Your task to perform on an android device: change the upload size in google photos Image 0: 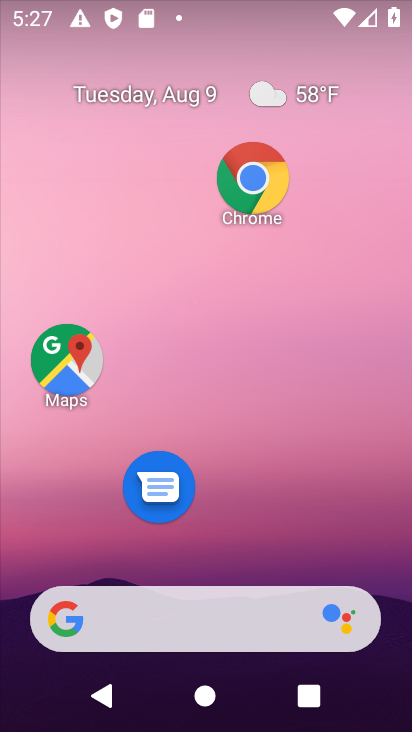
Step 0: drag from (255, 527) to (204, 161)
Your task to perform on an android device: change the upload size in google photos Image 1: 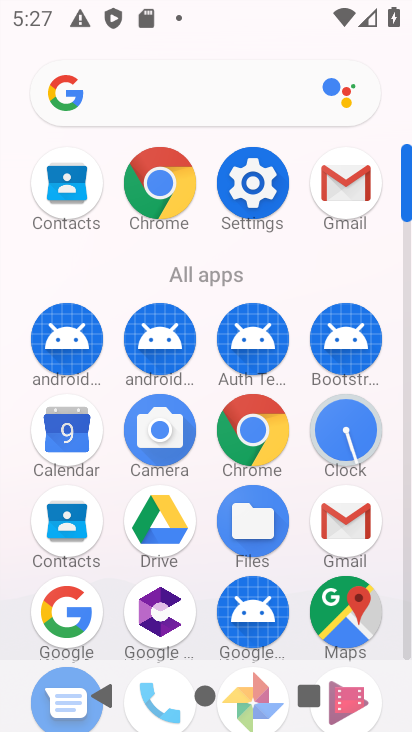
Step 1: click (269, 697)
Your task to perform on an android device: change the upload size in google photos Image 2: 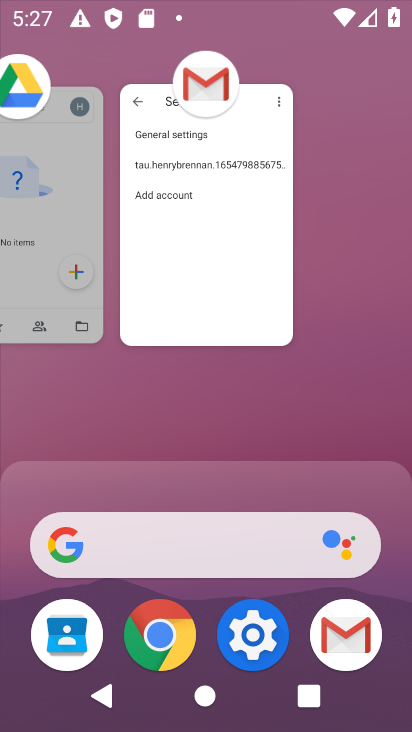
Step 2: click (152, 350)
Your task to perform on an android device: change the upload size in google photos Image 3: 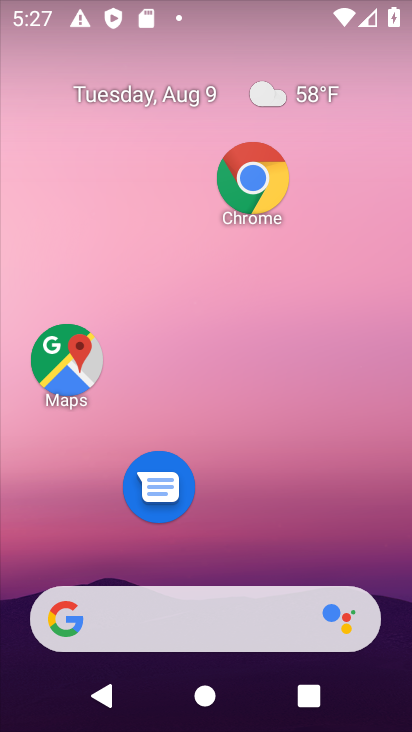
Step 3: drag from (214, 497) to (221, 152)
Your task to perform on an android device: change the upload size in google photos Image 4: 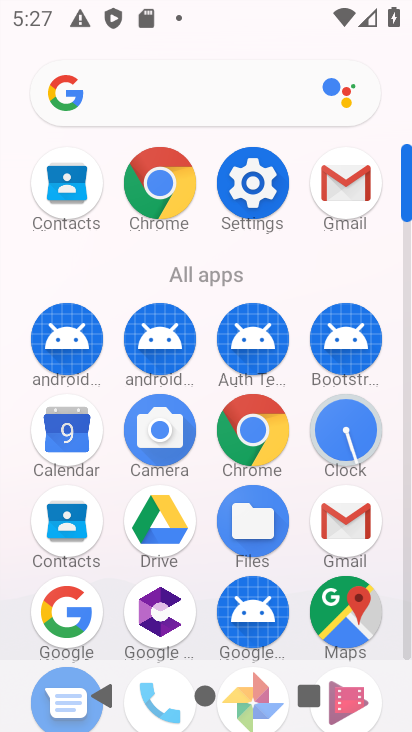
Step 4: drag from (28, 488) to (36, 318)
Your task to perform on an android device: change the upload size in google photos Image 5: 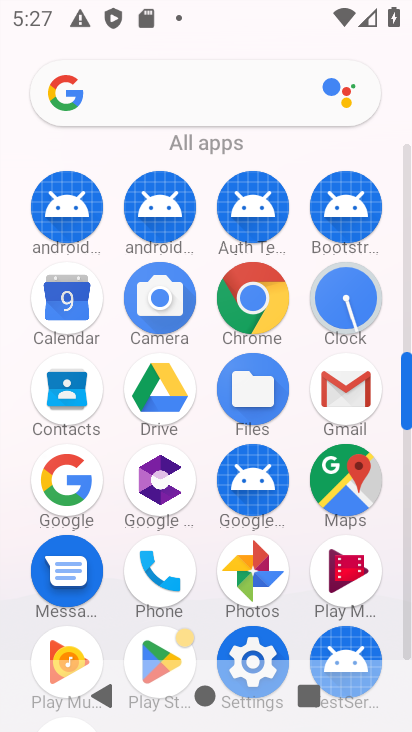
Step 5: click (257, 565)
Your task to perform on an android device: change the upload size in google photos Image 6: 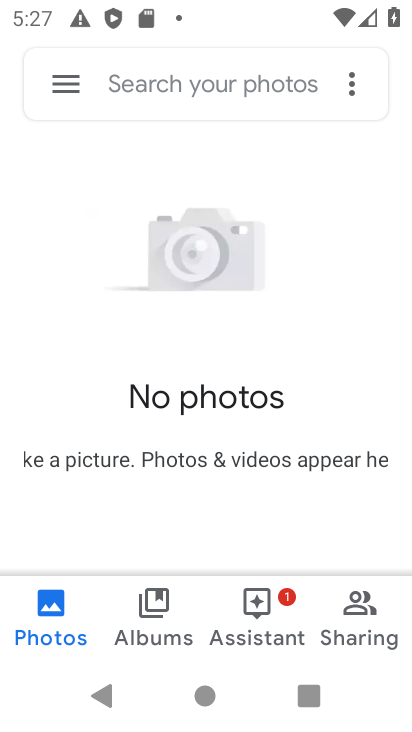
Step 6: click (148, 602)
Your task to perform on an android device: change the upload size in google photos Image 7: 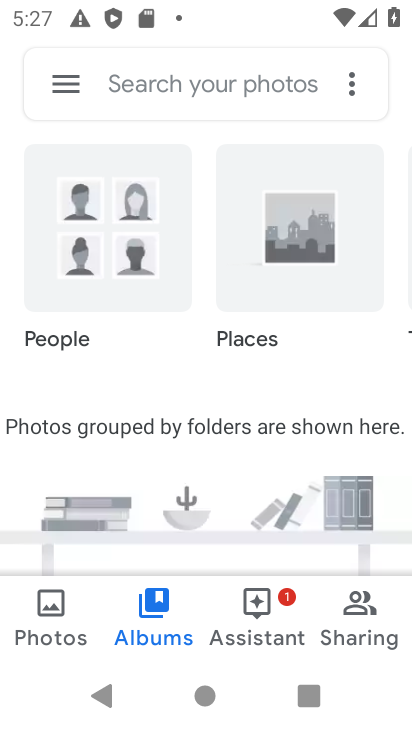
Step 7: click (351, 97)
Your task to perform on an android device: change the upload size in google photos Image 8: 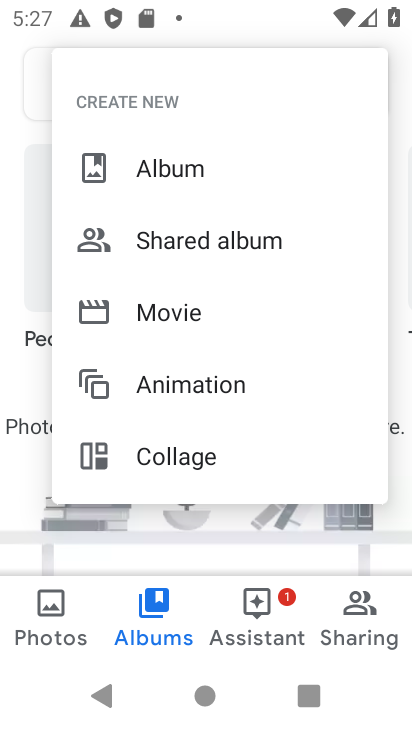
Step 8: click (33, 118)
Your task to perform on an android device: change the upload size in google photos Image 9: 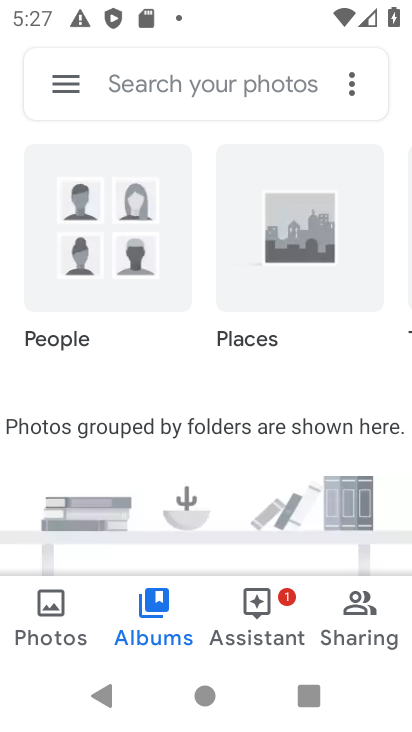
Step 9: click (361, 597)
Your task to perform on an android device: change the upload size in google photos Image 10: 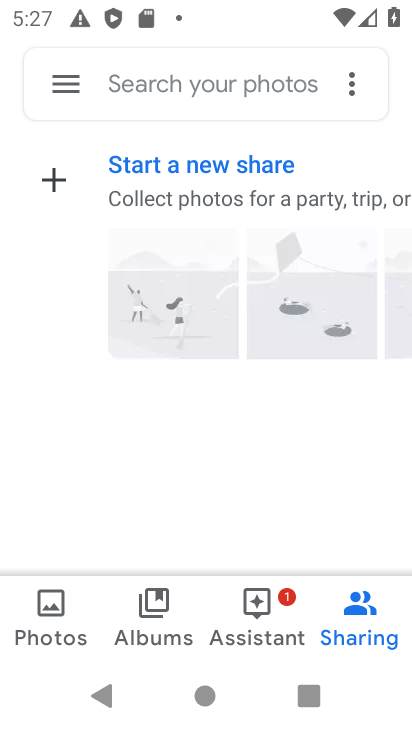
Step 10: click (65, 79)
Your task to perform on an android device: change the upload size in google photos Image 11: 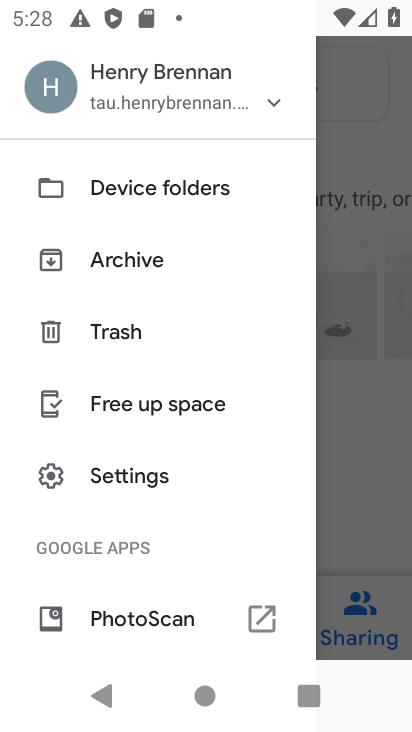
Step 11: click (114, 471)
Your task to perform on an android device: change the upload size in google photos Image 12: 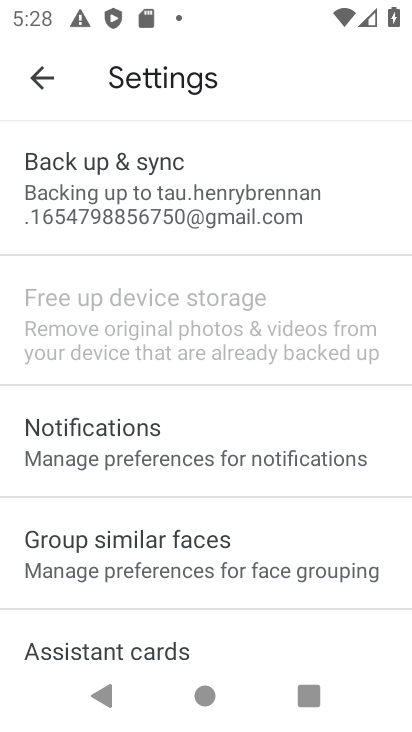
Step 12: click (118, 188)
Your task to perform on an android device: change the upload size in google photos Image 13: 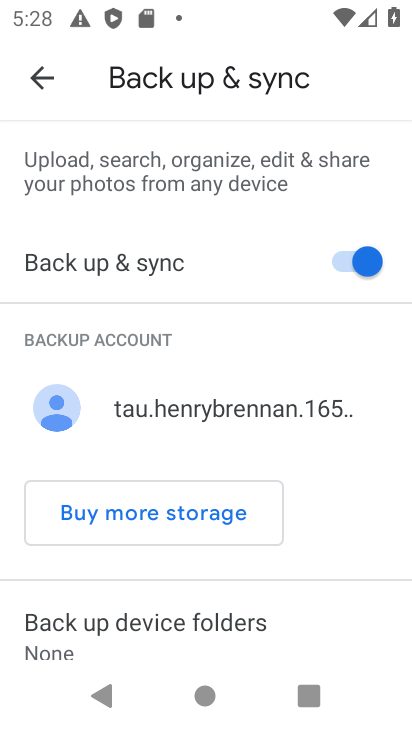
Step 13: drag from (219, 552) to (178, 67)
Your task to perform on an android device: change the upload size in google photos Image 14: 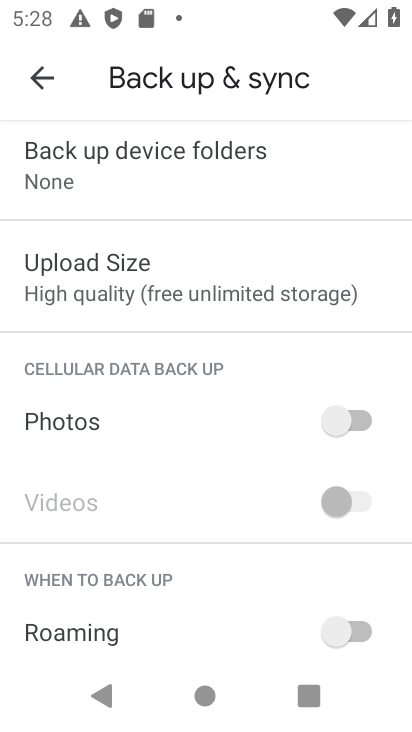
Step 14: click (147, 318)
Your task to perform on an android device: change the upload size in google photos Image 15: 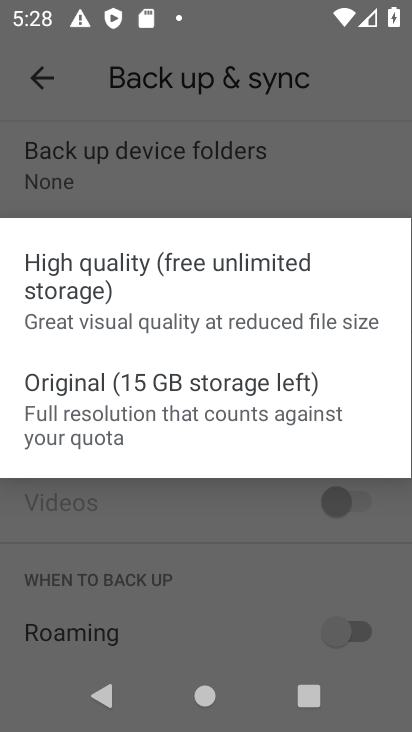
Step 15: click (109, 388)
Your task to perform on an android device: change the upload size in google photos Image 16: 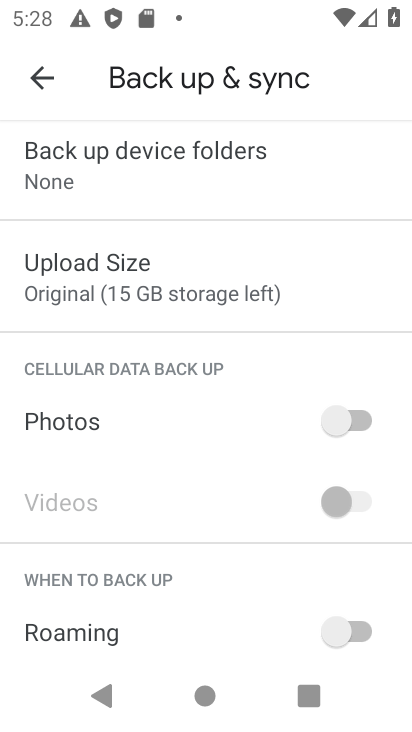
Step 16: task complete